Your task to perform on an android device: Show me productivity apps on the Play Store Image 0: 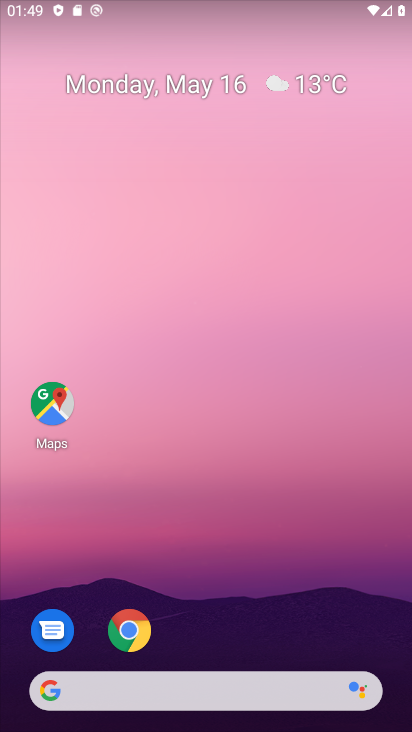
Step 0: drag from (307, 555) to (278, 77)
Your task to perform on an android device: Show me productivity apps on the Play Store Image 1: 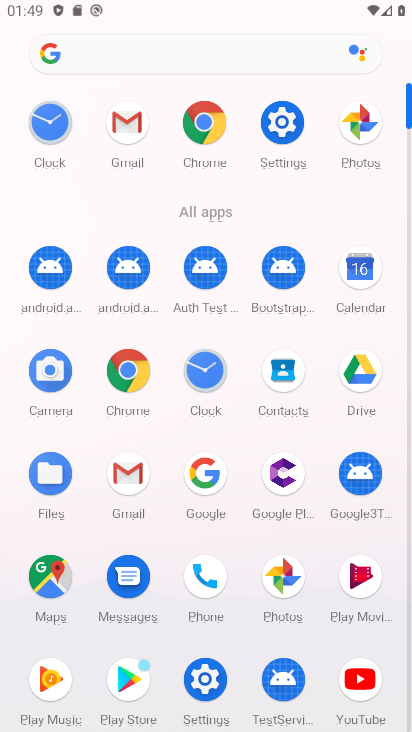
Step 1: click (127, 674)
Your task to perform on an android device: Show me productivity apps on the Play Store Image 2: 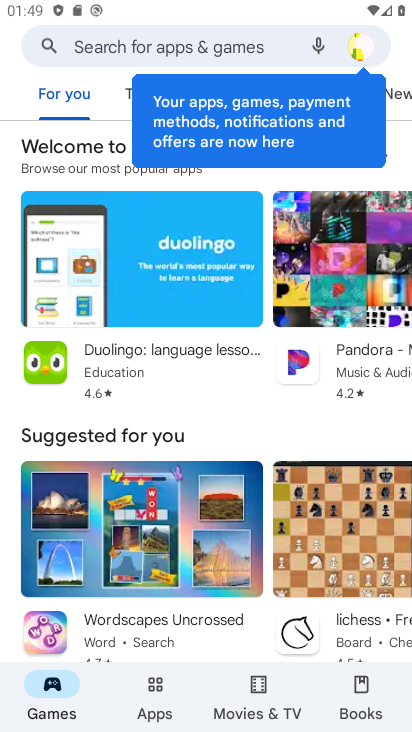
Step 2: click (156, 697)
Your task to perform on an android device: Show me productivity apps on the Play Store Image 3: 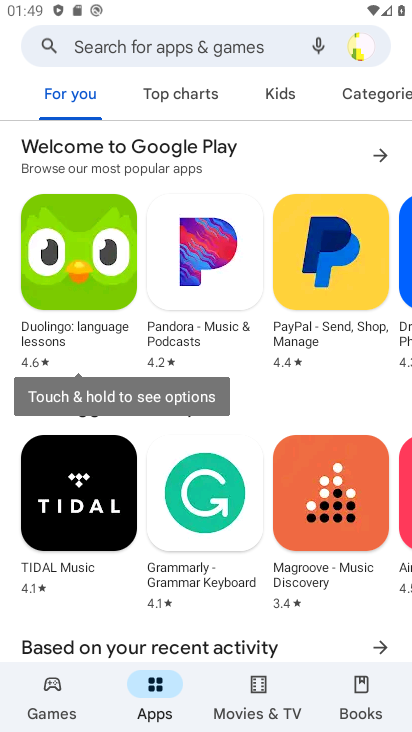
Step 3: click (382, 99)
Your task to perform on an android device: Show me productivity apps on the Play Store Image 4: 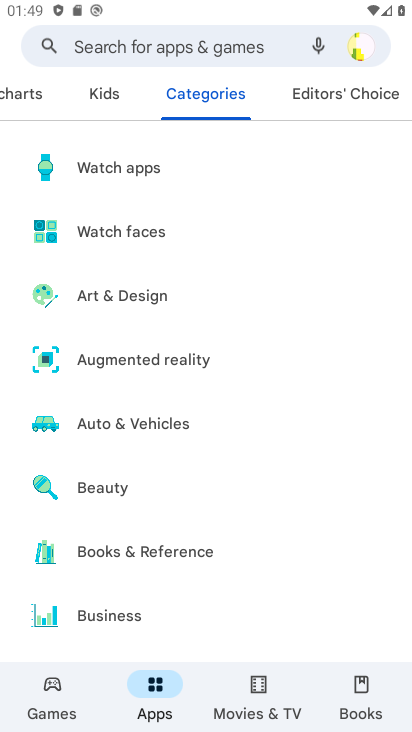
Step 4: drag from (271, 641) to (279, 146)
Your task to perform on an android device: Show me productivity apps on the Play Store Image 5: 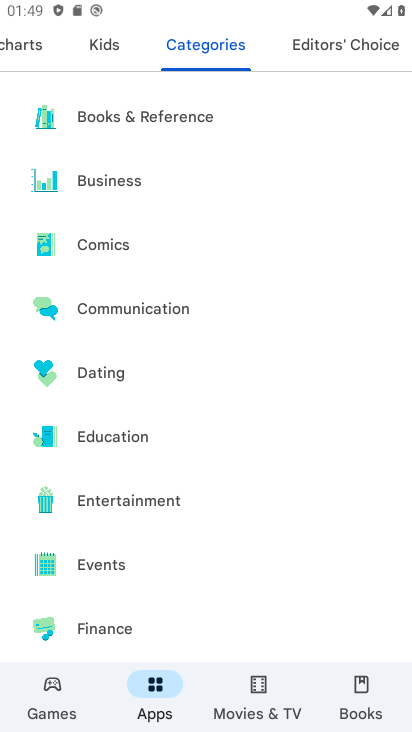
Step 5: drag from (259, 550) to (286, 261)
Your task to perform on an android device: Show me productivity apps on the Play Store Image 6: 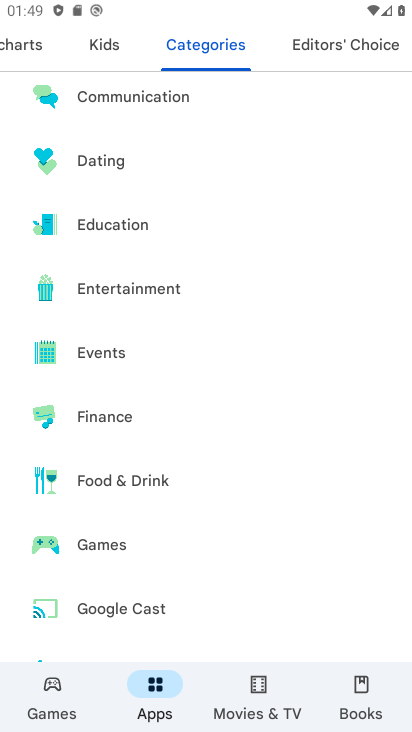
Step 6: drag from (263, 585) to (261, 257)
Your task to perform on an android device: Show me productivity apps on the Play Store Image 7: 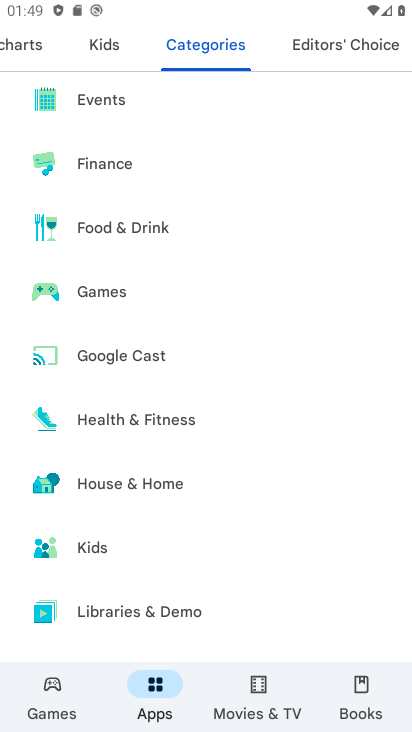
Step 7: drag from (238, 486) to (272, 213)
Your task to perform on an android device: Show me productivity apps on the Play Store Image 8: 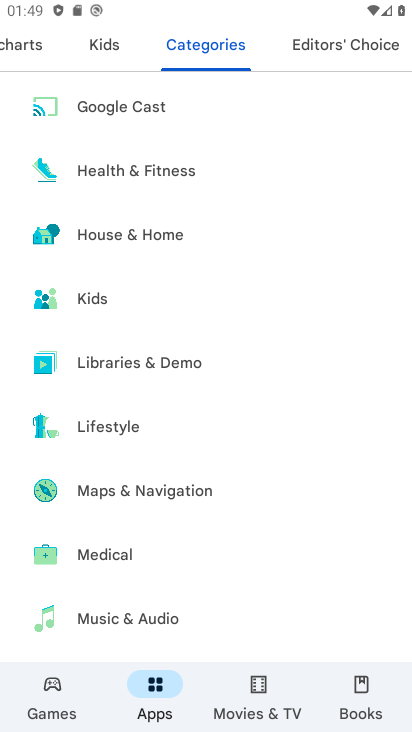
Step 8: drag from (228, 614) to (283, 208)
Your task to perform on an android device: Show me productivity apps on the Play Store Image 9: 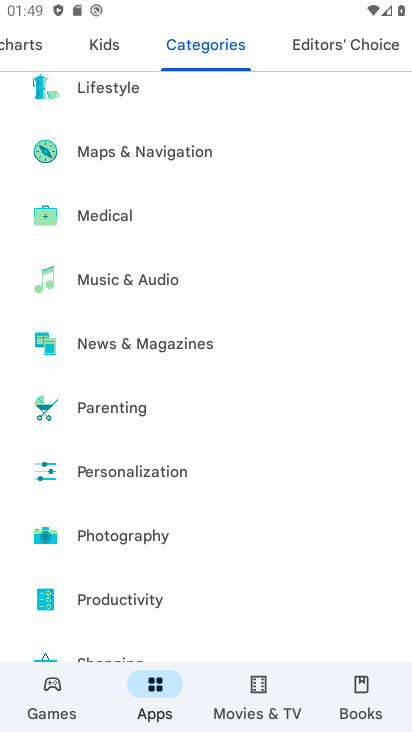
Step 9: drag from (251, 595) to (275, 312)
Your task to perform on an android device: Show me productivity apps on the Play Store Image 10: 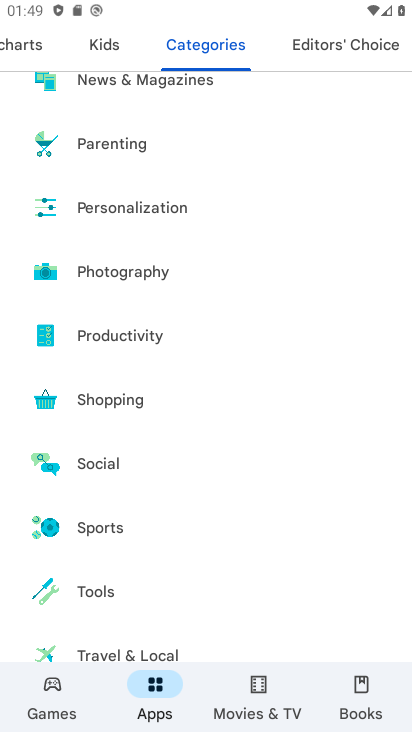
Step 10: click (140, 347)
Your task to perform on an android device: Show me productivity apps on the Play Store Image 11: 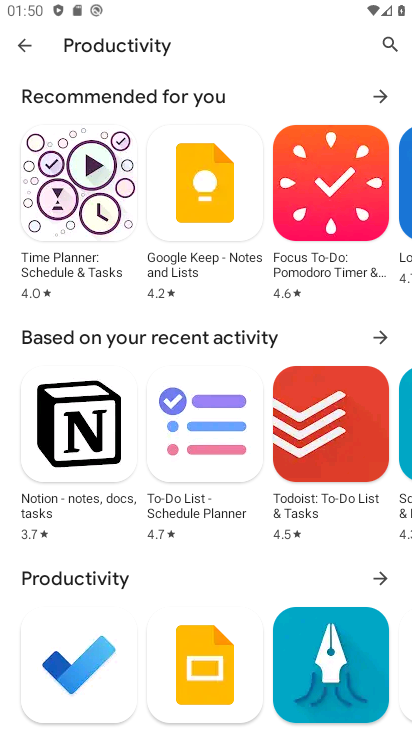
Step 11: task complete